Your task to perform on an android device: Open settings on Google Maps Image 0: 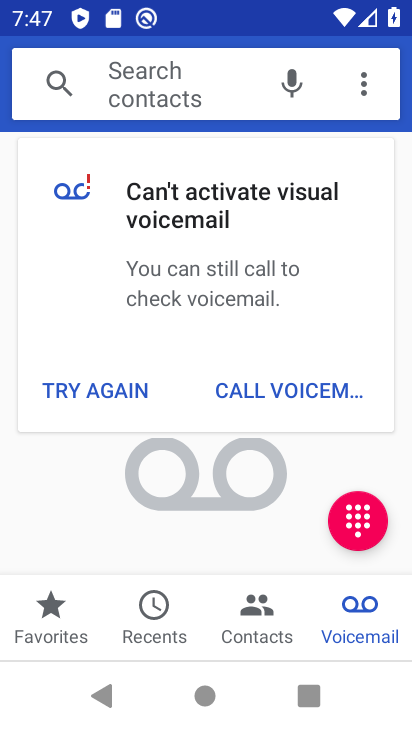
Step 0: press home button
Your task to perform on an android device: Open settings on Google Maps Image 1: 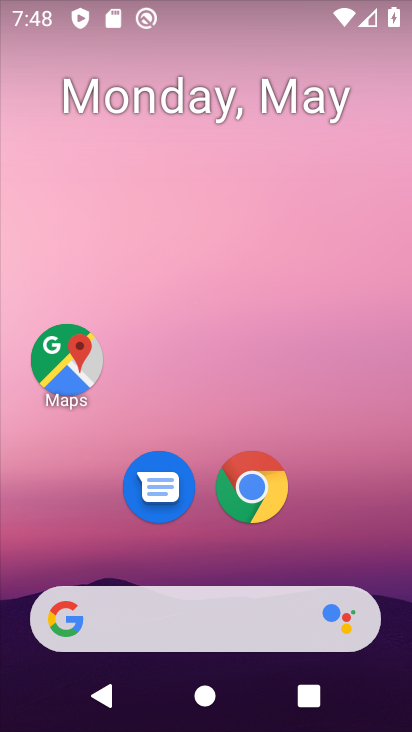
Step 1: click (73, 373)
Your task to perform on an android device: Open settings on Google Maps Image 2: 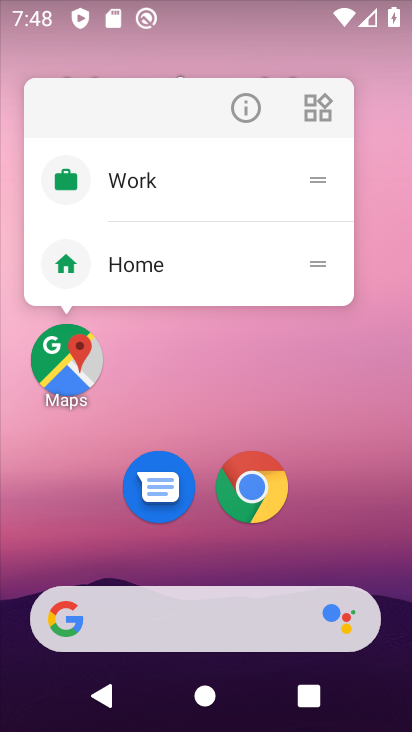
Step 2: click (328, 435)
Your task to perform on an android device: Open settings on Google Maps Image 3: 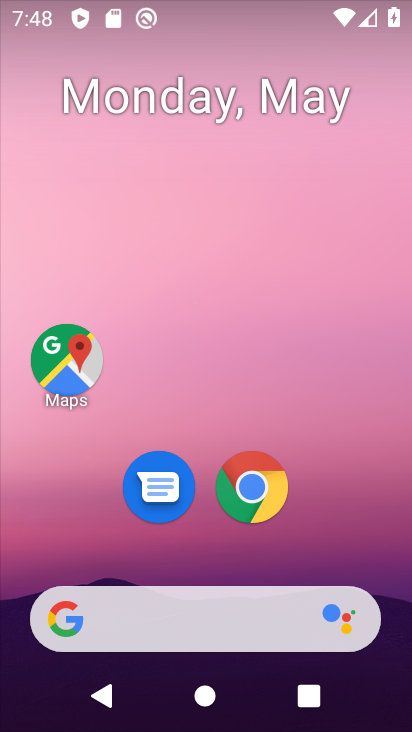
Step 3: drag from (330, 539) to (305, 6)
Your task to perform on an android device: Open settings on Google Maps Image 4: 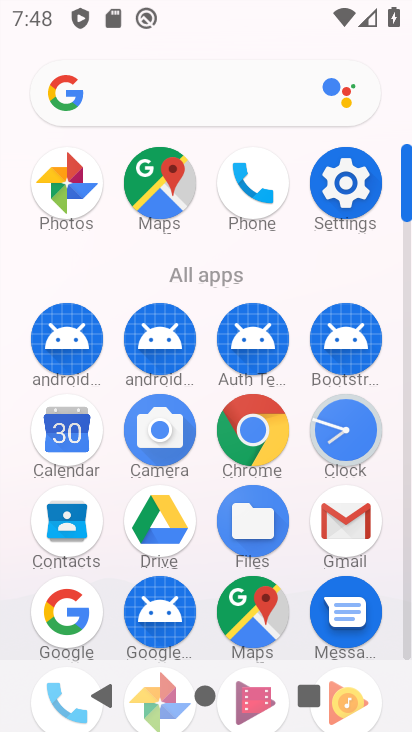
Step 4: click (169, 195)
Your task to perform on an android device: Open settings on Google Maps Image 5: 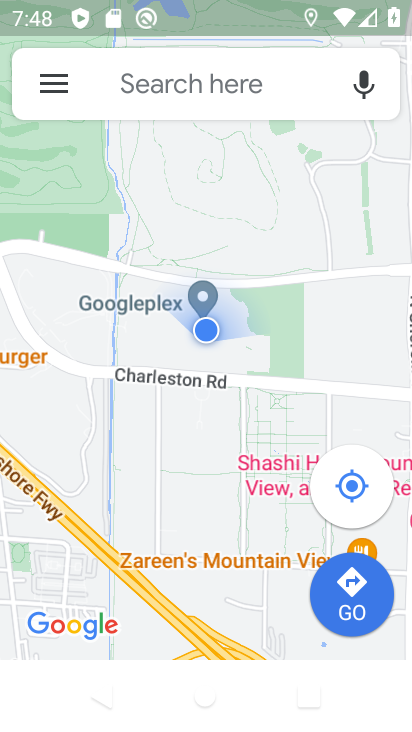
Step 5: click (51, 83)
Your task to perform on an android device: Open settings on Google Maps Image 6: 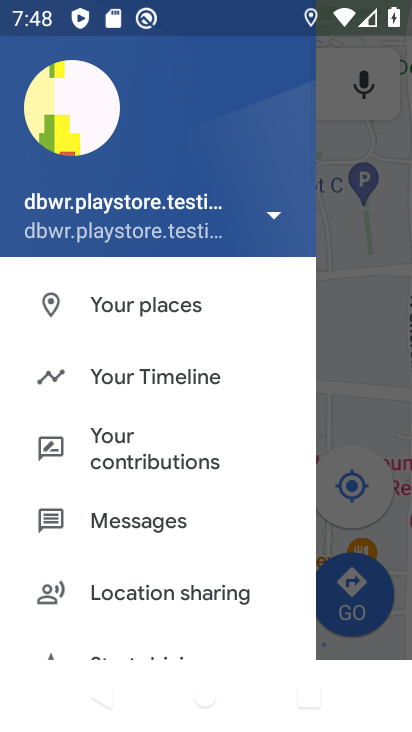
Step 6: drag from (238, 573) to (213, 163)
Your task to perform on an android device: Open settings on Google Maps Image 7: 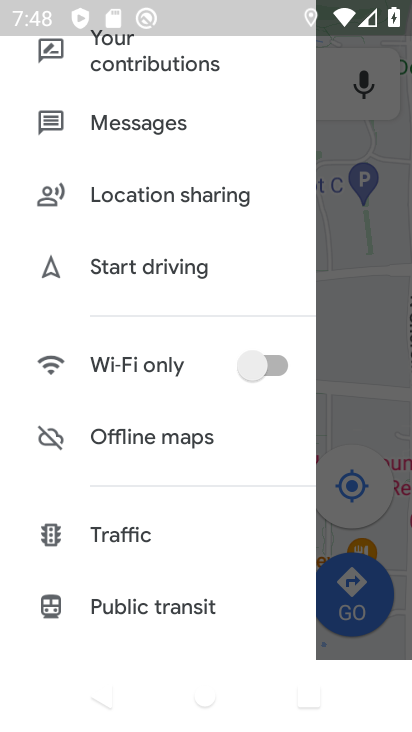
Step 7: drag from (196, 551) to (201, 84)
Your task to perform on an android device: Open settings on Google Maps Image 8: 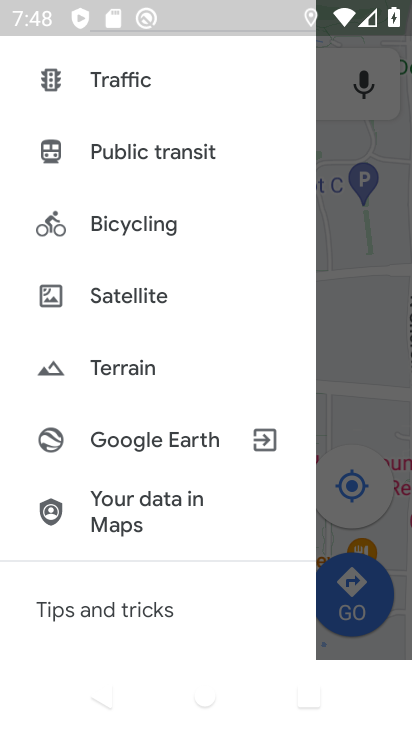
Step 8: drag from (208, 525) to (214, 136)
Your task to perform on an android device: Open settings on Google Maps Image 9: 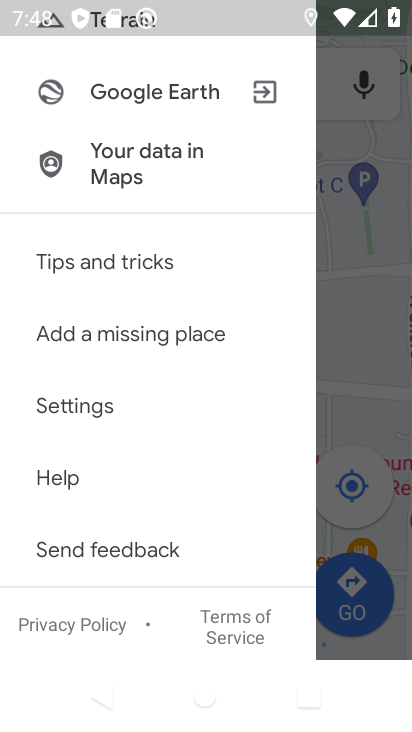
Step 9: click (61, 405)
Your task to perform on an android device: Open settings on Google Maps Image 10: 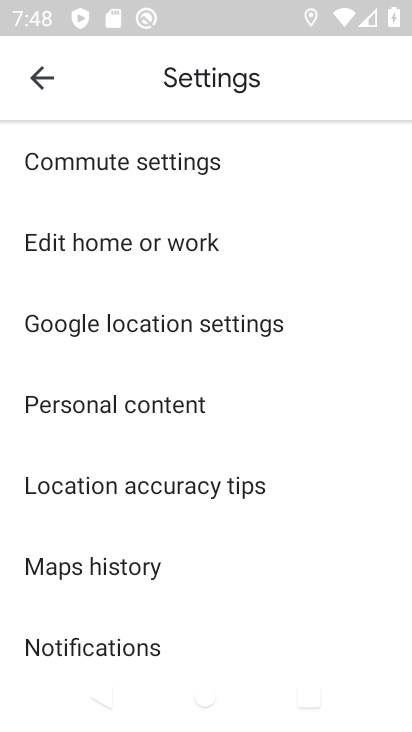
Step 10: task complete